Your task to perform on an android device: check the backup settings in the google photos Image 0: 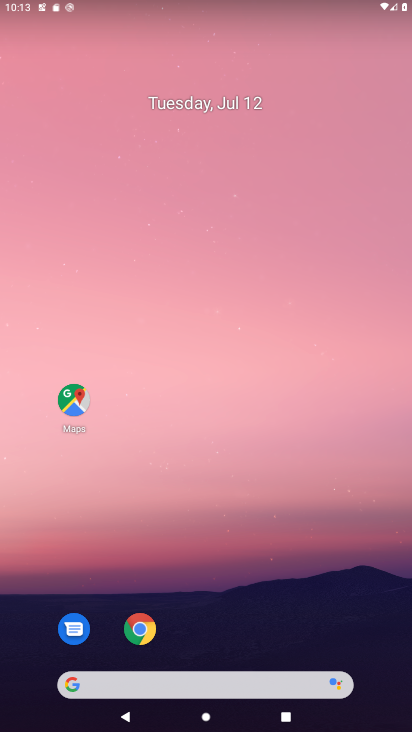
Step 0: drag from (268, 622) to (314, 323)
Your task to perform on an android device: check the backup settings in the google photos Image 1: 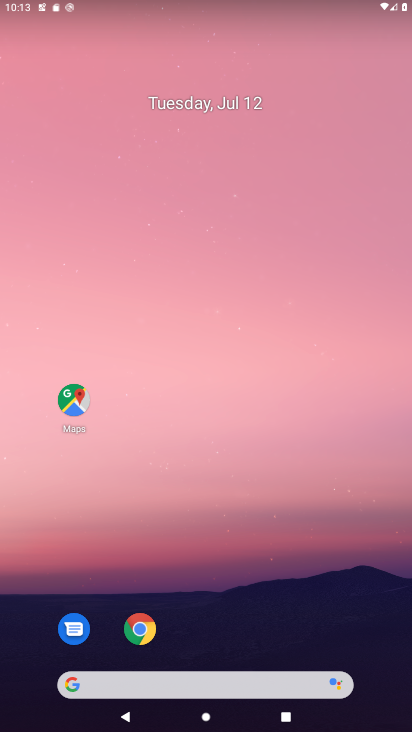
Step 1: drag from (255, 679) to (381, 4)
Your task to perform on an android device: check the backup settings in the google photos Image 2: 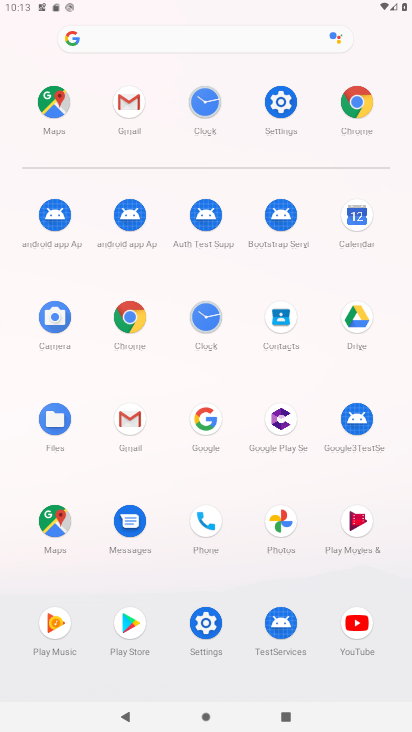
Step 2: click (284, 521)
Your task to perform on an android device: check the backup settings in the google photos Image 3: 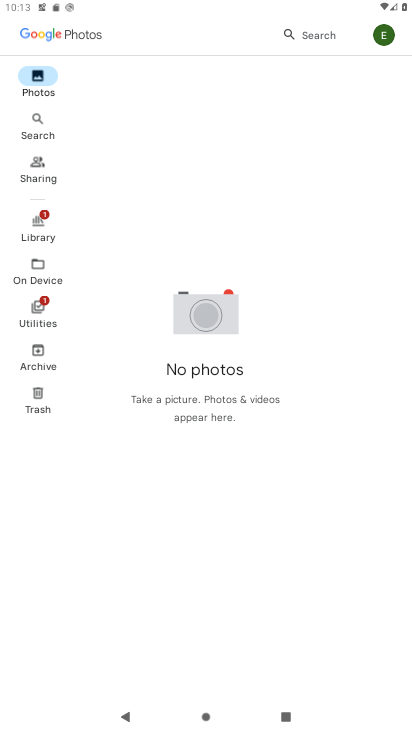
Step 3: click (379, 25)
Your task to perform on an android device: check the backup settings in the google photos Image 4: 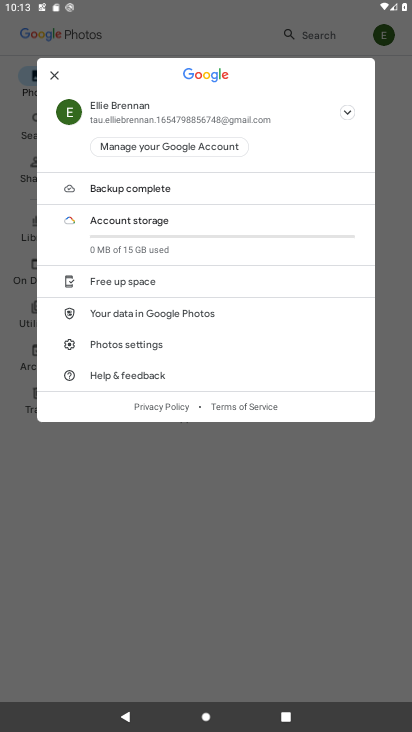
Step 4: click (156, 339)
Your task to perform on an android device: check the backup settings in the google photos Image 5: 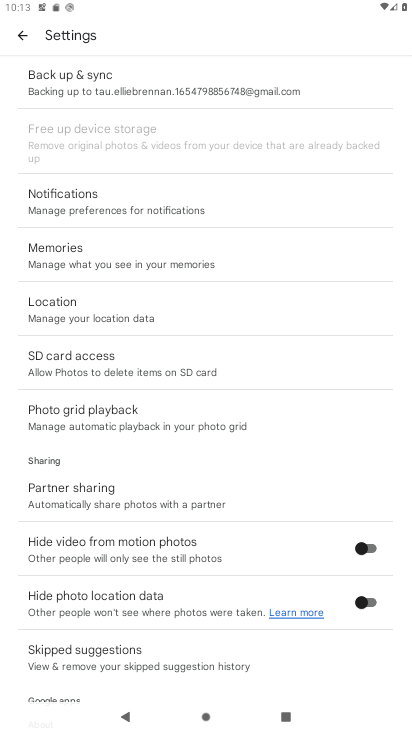
Step 5: click (112, 74)
Your task to perform on an android device: check the backup settings in the google photos Image 6: 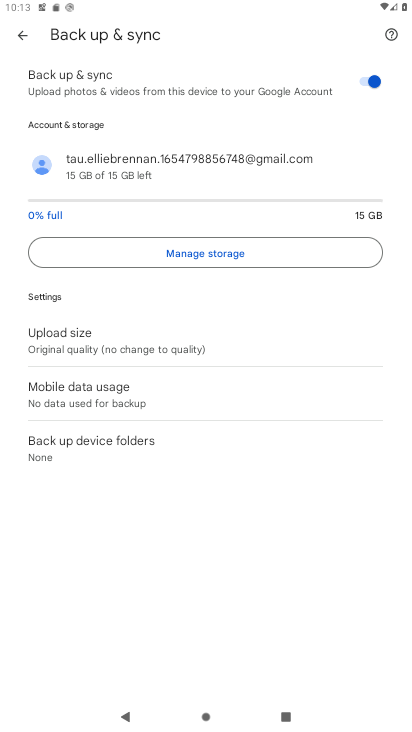
Step 6: task complete